Your task to perform on an android device: turn off location Image 0: 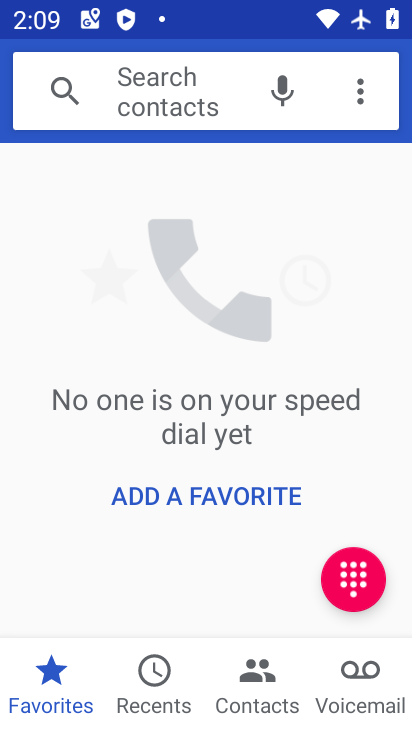
Step 0: press home button
Your task to perform on an android device: turn off location Image 1: 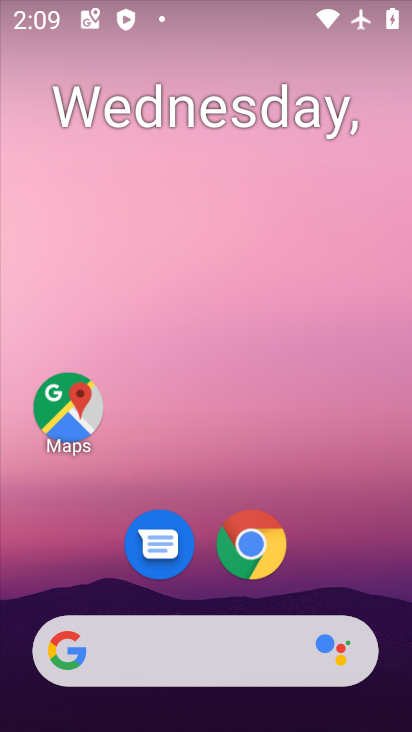
Step 1: drag from (333, 596) to (356, 75)
Your task to perform on an android device: turn off location Image 2: 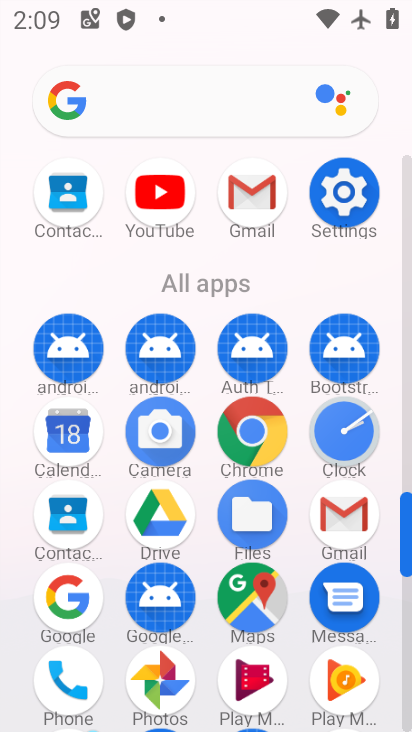
Step 2: click (349, 186)
Your task to perform on an android device: turn off location Image 3: 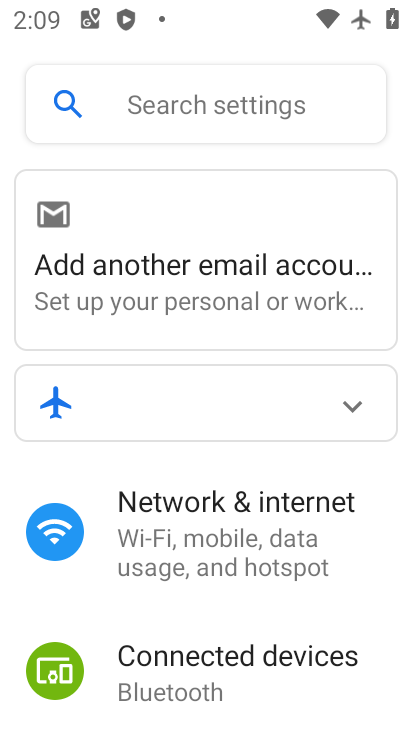
Step 3: drag from (191, 569) to (284, 121)
Your task to perform on an android device: turn off location Image 4: 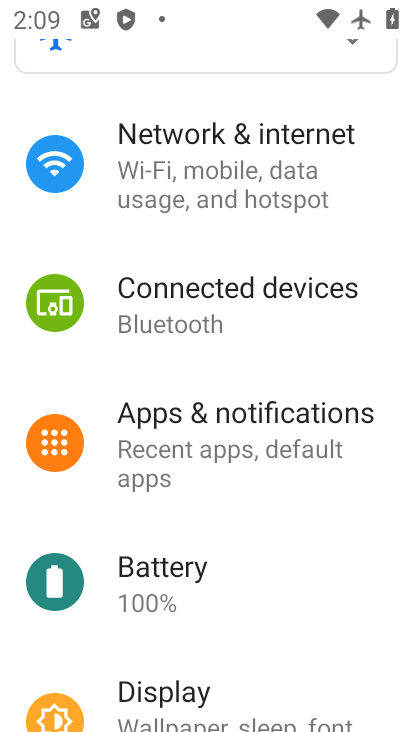
Step 4: drag from (226, 560) to (253, 335)
Your task to perform on an android device: turn off location Image 5: 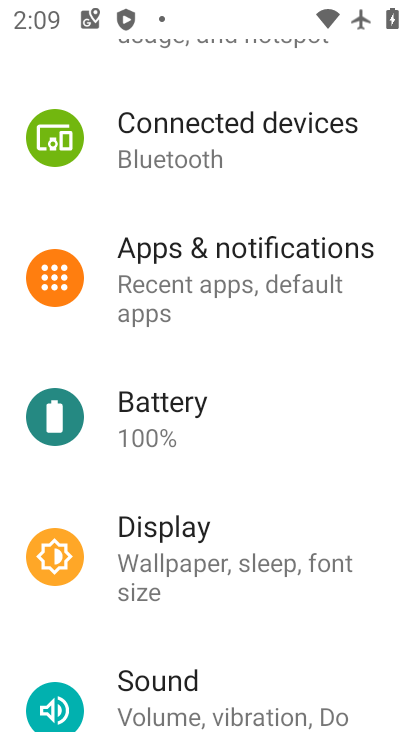
Step 5: drag from (189, 673) to (288, 188)
Your task to perform on an android device: turn off location Image 6: 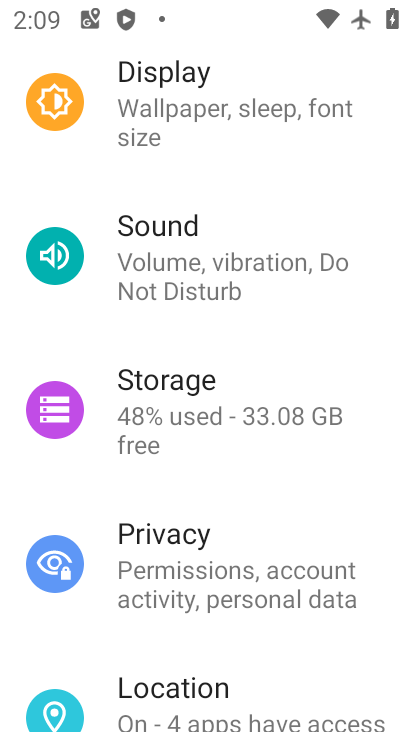
Step 6: click (181, 668)
Your task to perform on an android device: turn off location Image 7: 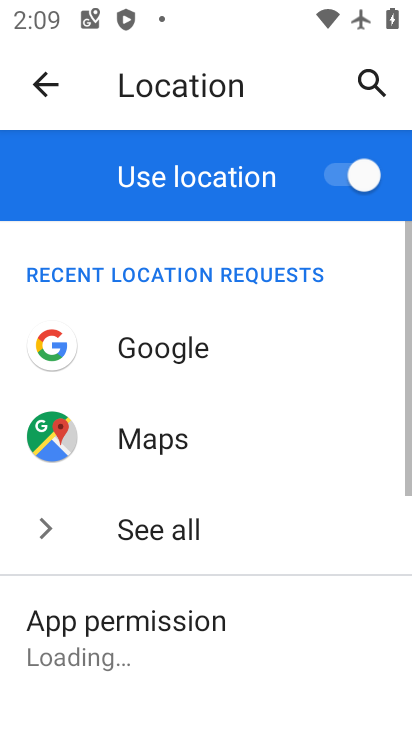
Step 7: click (352, 140)
Your task to perform on an android device: turn off location Image 8: 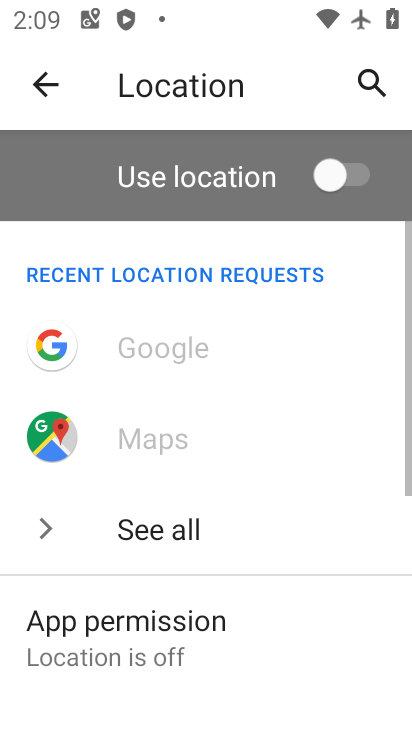
Step 8: task complete